Your task to perform on an android device: Find coffee shops on Maps Image 0: 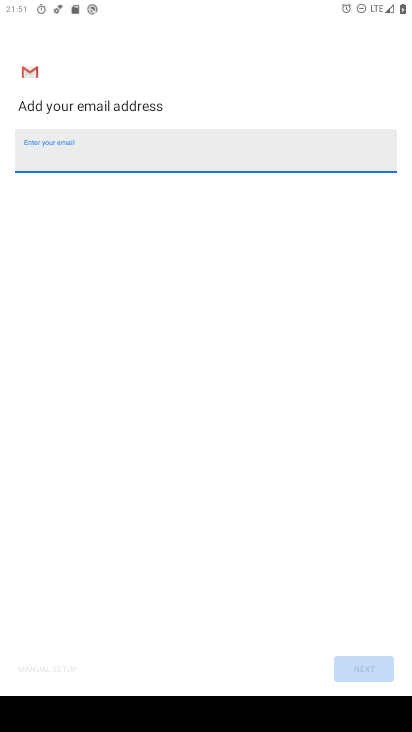
Step 0: press home button
Your task to perform on an android device: Find coffee shops on Maps Image 1: 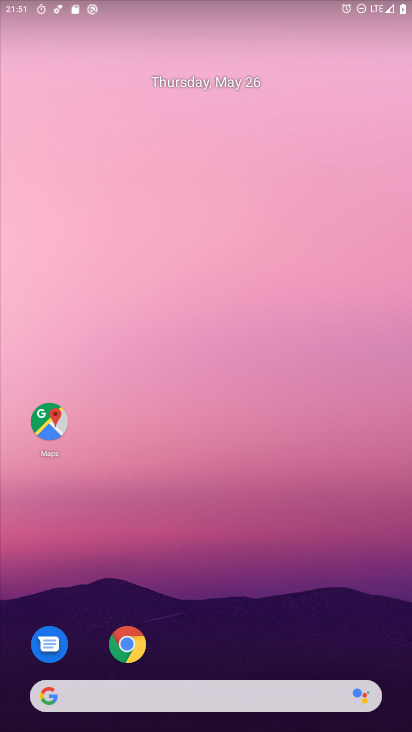
Step 1: drag from (195, 655) to (246, 5)
Your task to perform on an android device: Find coffee shops on Maps Image 2: 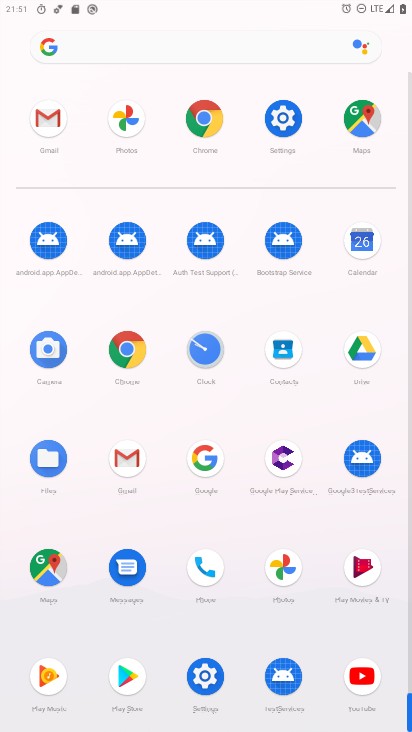
Step 2: click (49, 569)
Your task to perform on an android device: Find coffee shops on Maps Image 3: 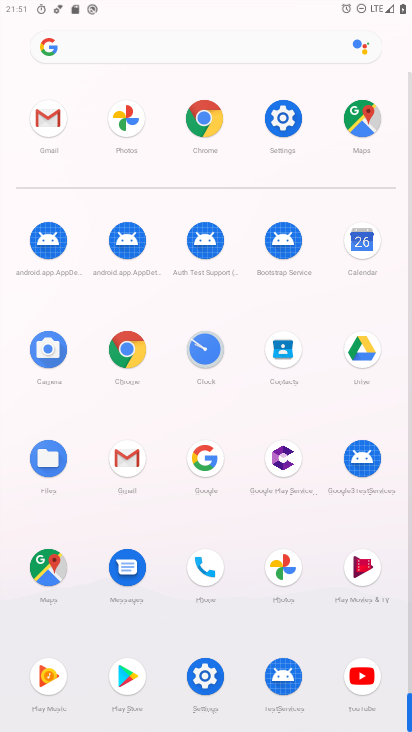
Step 3: click (49, 569)
Your task to perform on an android device: Find coffee shops on Maps Image 4: 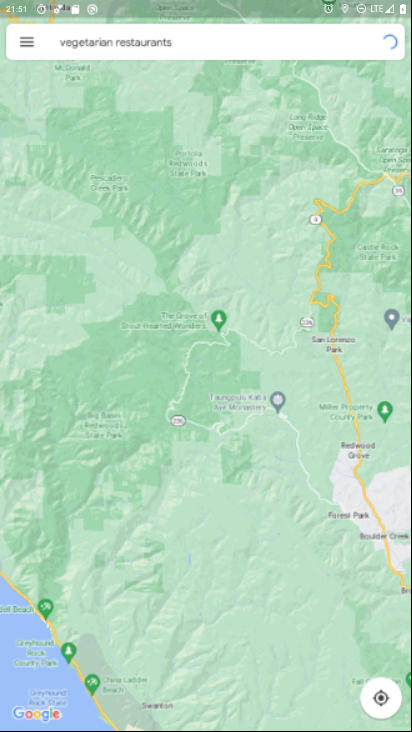
Step 4: drag from (337, 216) to (164, 616)
Your task to perform on an android device: Find coffee shops on Maps Image 5: 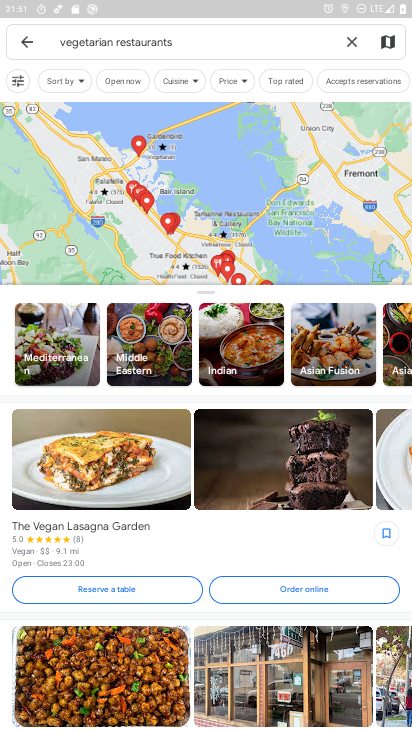
Step 5: click (346, 45)
Your task to perform on an android device: Find coffee shops on Maps Image 6: 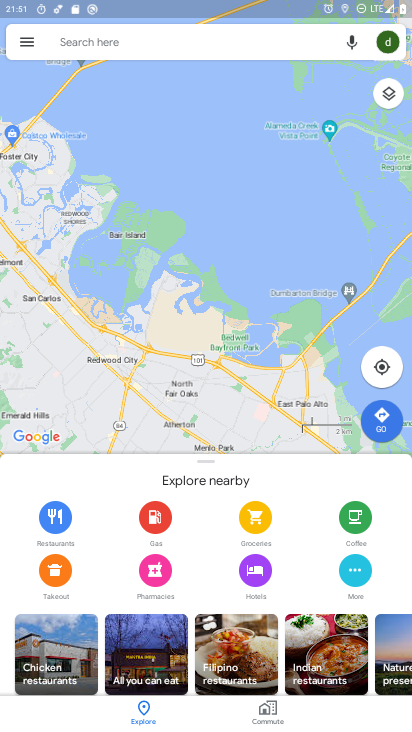
Step 6: click (122, 45)
Your task to perform on an android device: Find coffee shops on Maps Image 7: 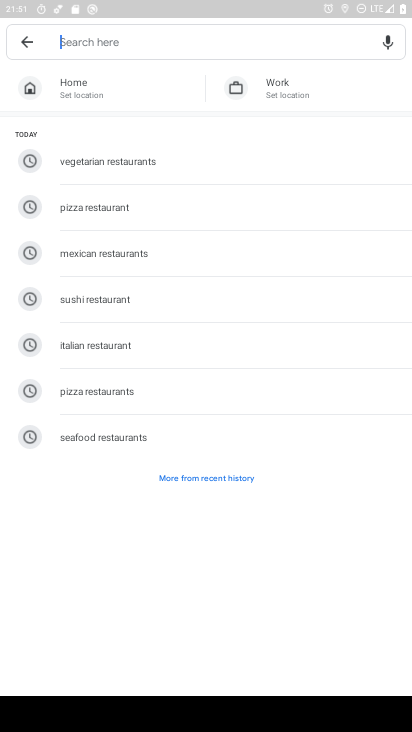
Step 7: drag from (227, 379) to (230, 211)
Your task to perform on an android device: Find coffee shops on Maps Image 8: 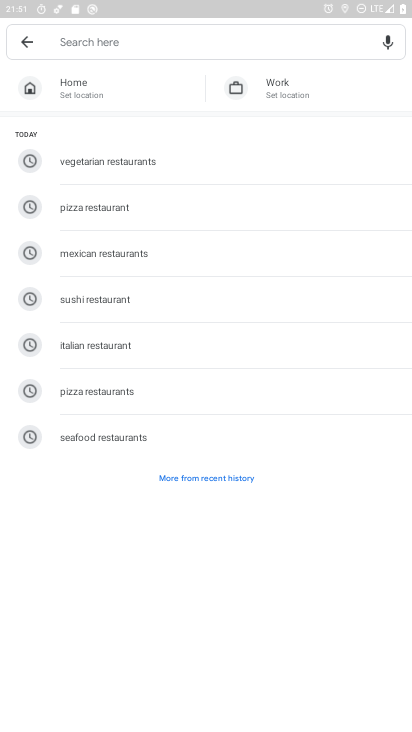
Step 8: click (136, 47)
Your task to perform on an android device: Find coffee shops on Maps Image 9: 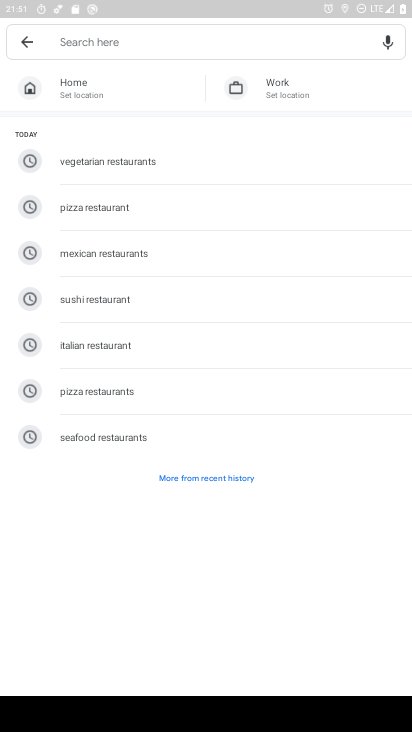
Step 9: type "coffee"
Your task to perform on an android device: Find coffee shops on Maps Image 10: 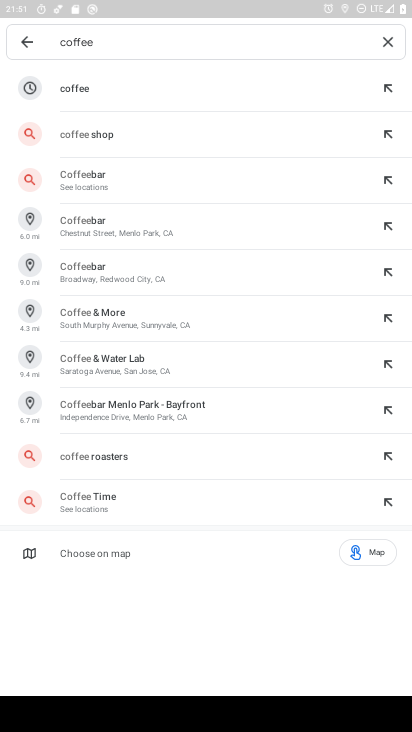
Step 10: click (123, 99)
Your task to perform on an android device: Find coffee shops on Maps Image 11: 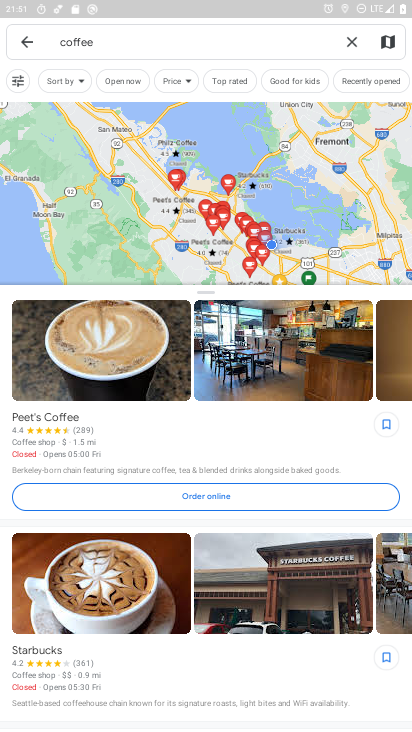
Step 11: task complete